Your task to perform on an android device: turn on data saver in the chrome app Image 0: 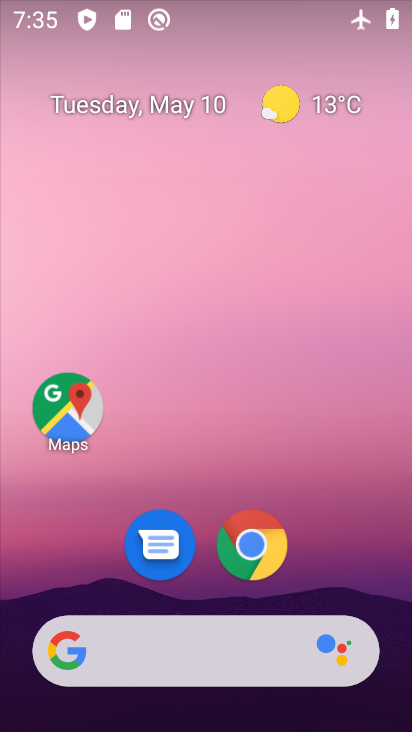
Step 0: click (69, 405)
Your task to perform on an android device: turn on data saver in the chrome app Image 1: 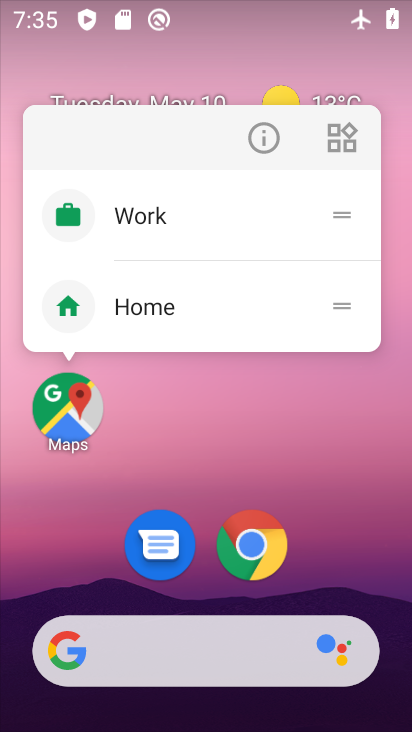
Step 1: click (212, 465)
Your task to perform on an android device: turn on data saver in the chrome app Image 2: 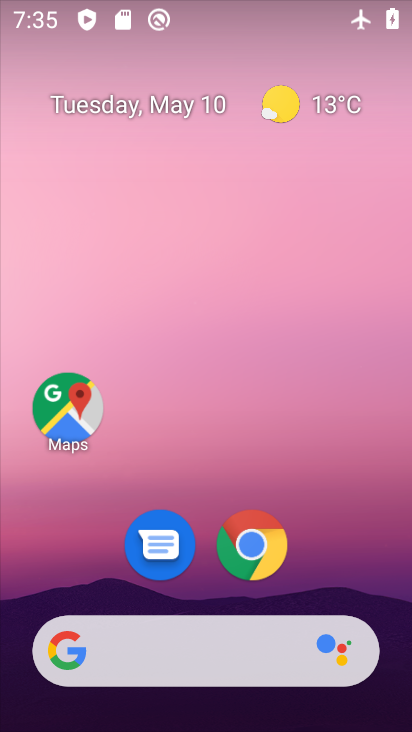
Step 2: click (246, 541)
Your task to perform on an android device: turn on data saver in the chrome app Image 3: 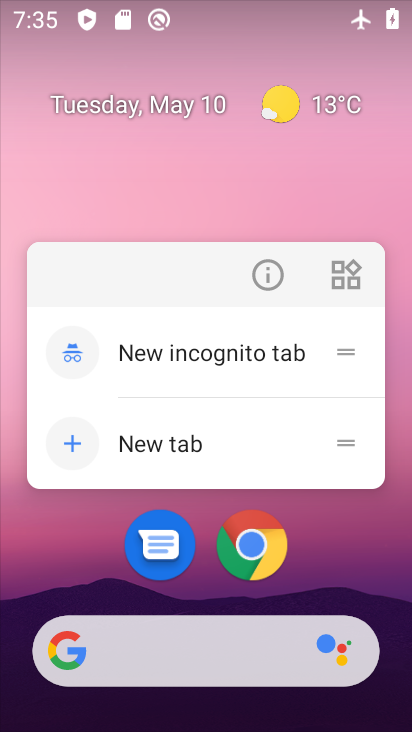
Step 3: click (246, 541)
Your task to perform on an android device: turn on data saver in the chrome app Image 4: 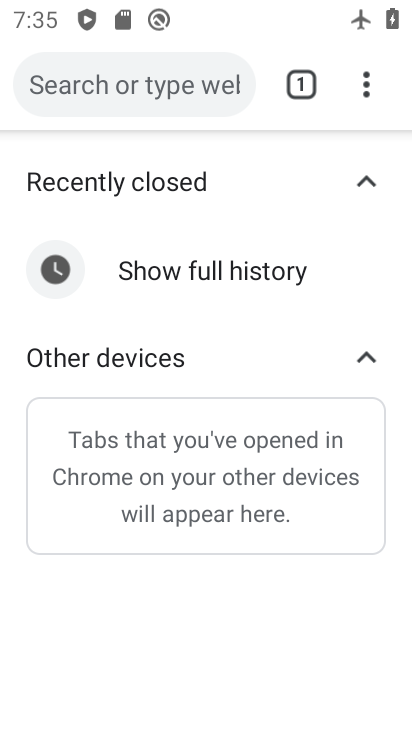
Step 4: click (365, 78)
Your task to perform on an android device: turn on data saver in the chrome app Image 5: 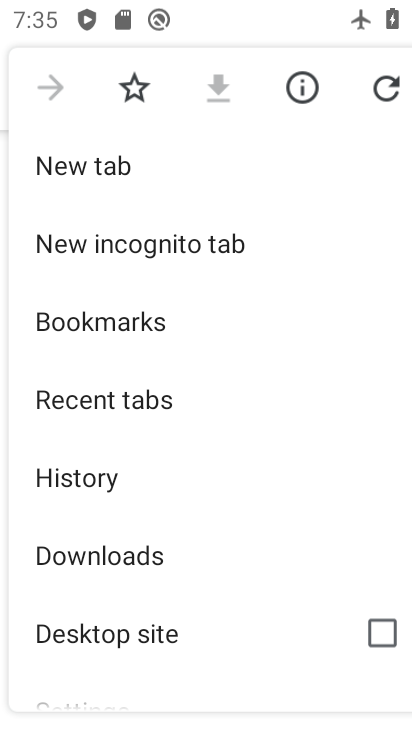
Step 5: drag from (180, 585) to (190, 201)
Your task to perform on an android device: turn on data saver in the chrome app Image 6: 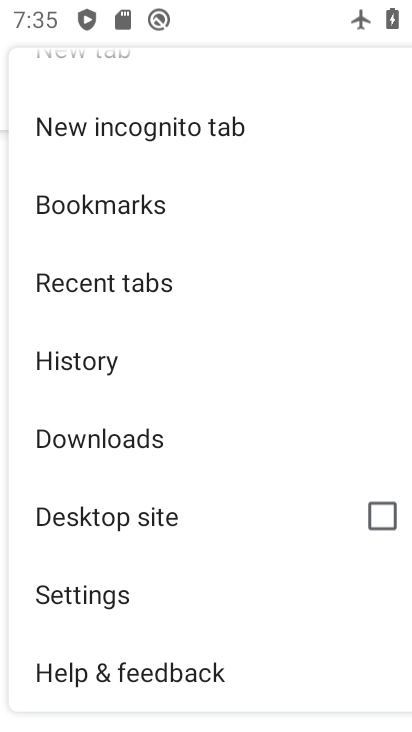
Step 6: click (136, 586)
Your task to perform on an android device: turn on data saver in the chrome app Image 7: 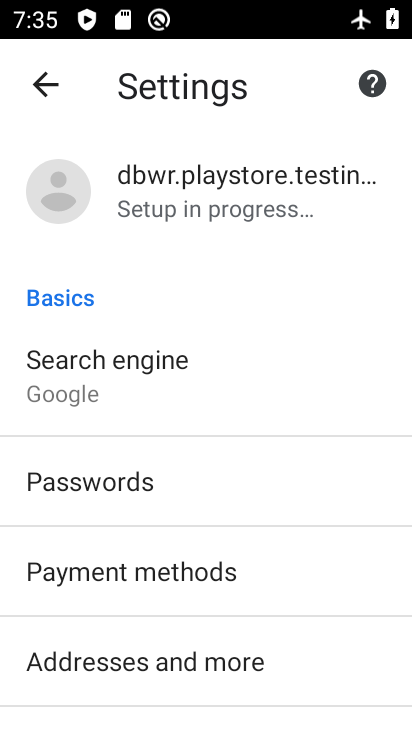
Step 7: drag from (184, 676) to (174, 252)
Your task to perform on an android device: turn on data saver in the chrome app Image 8: 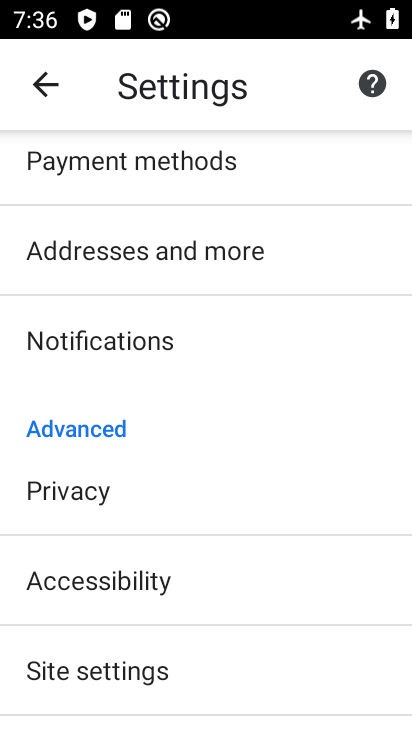
Step 8: drag from (180, 664) to (185, 289)
Your task to perform on an android device: turn on data saver in the chrome app Image 9: 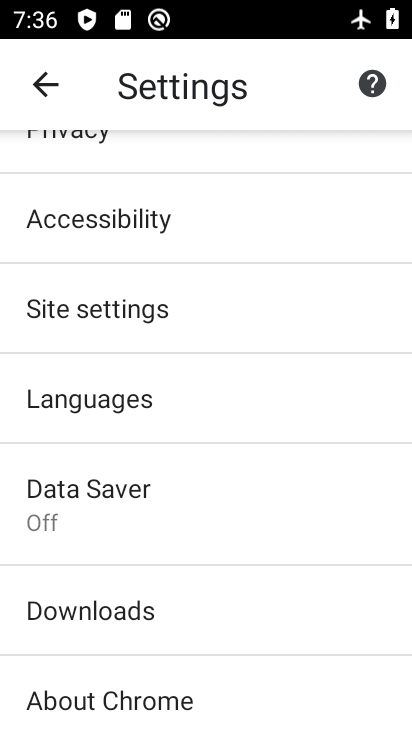
Step 9: click (118, 521)
Your task to perform on an android device: turn on data saver in the chrome app Image 10: 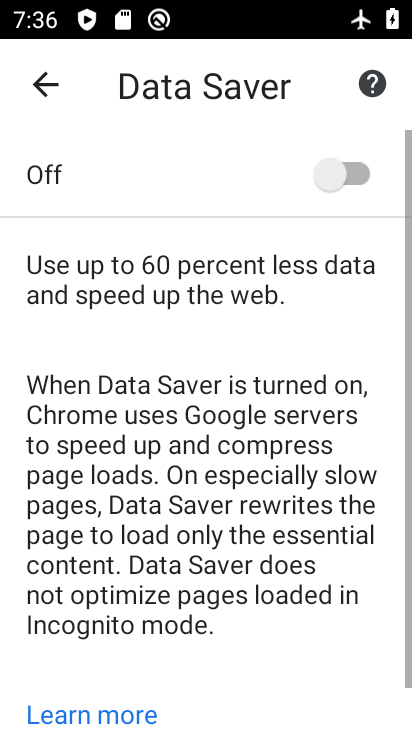
Step 10: click (358, 167)
Your task to perform on an android device: turn on data saver in the chrome app Image 11: 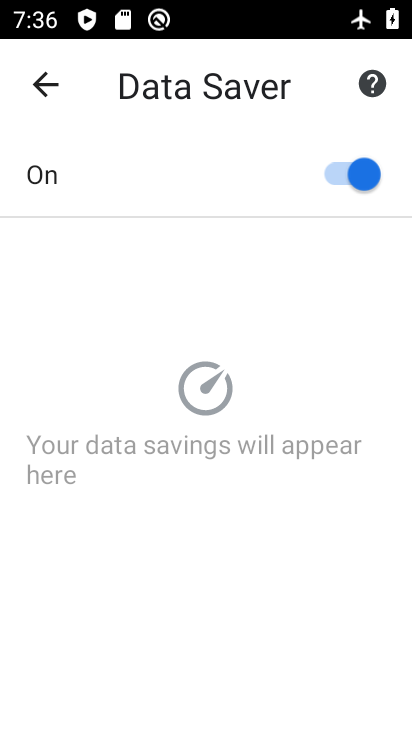
Step 11: task complete